Your task to perform on an android device: clear all cookies in the chrome app Image 0: 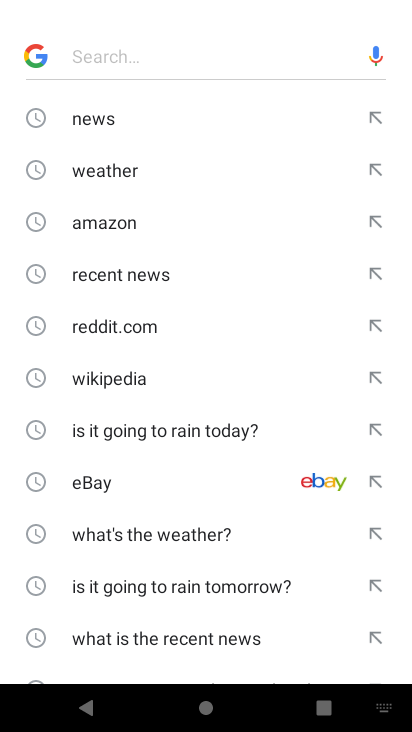
Step 0: press home button
Your task to perform on an android device: clear all cookies in the chrome app Image 1: 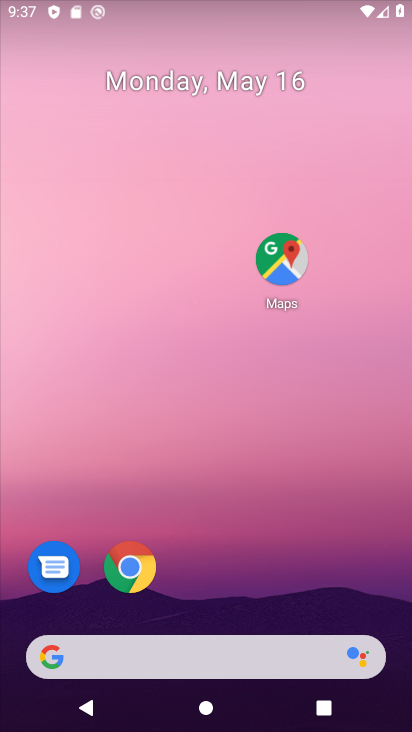
Step 1: click (130, 572)
Your task to perform on an android device: clear all cookies in the chrome app Image 2: 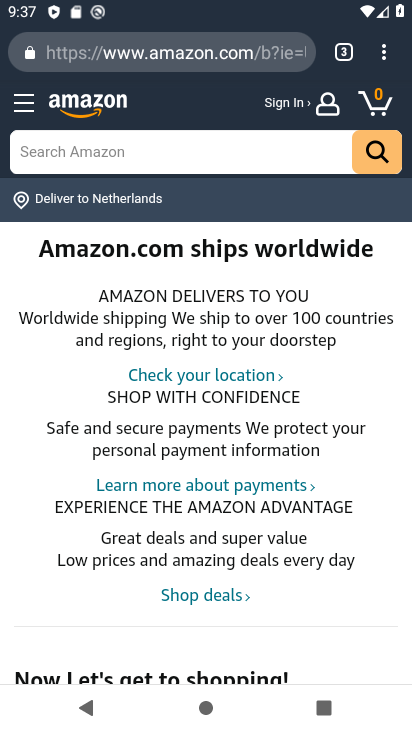
Step 2: click (377, 53)
Your task to perform on an android device: clear all cookies in the chrome app Image 3: 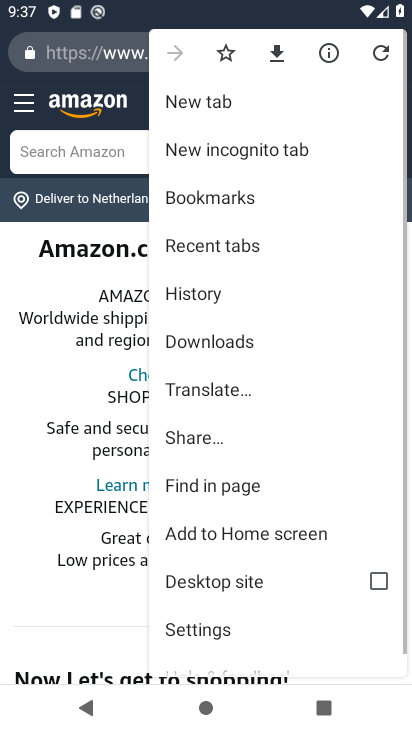
Step 3: click (243, 627)
Your task to perform on an android device: clear all cookies in the chrome app Image 4: 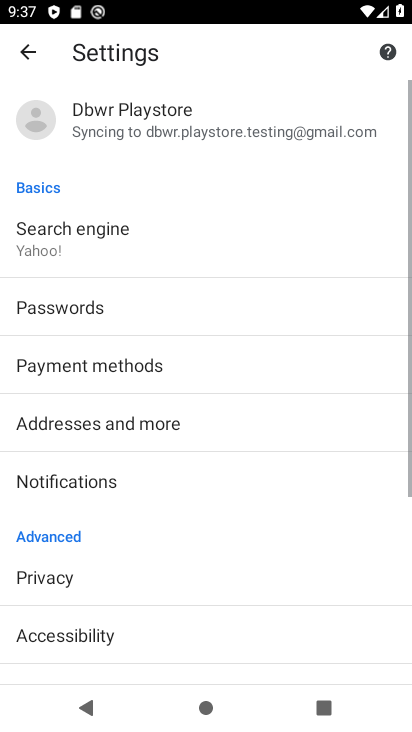
Step 4: click (56, 588)
Your task to perform on an android device: clear all cookies in the chrome app Image 5: 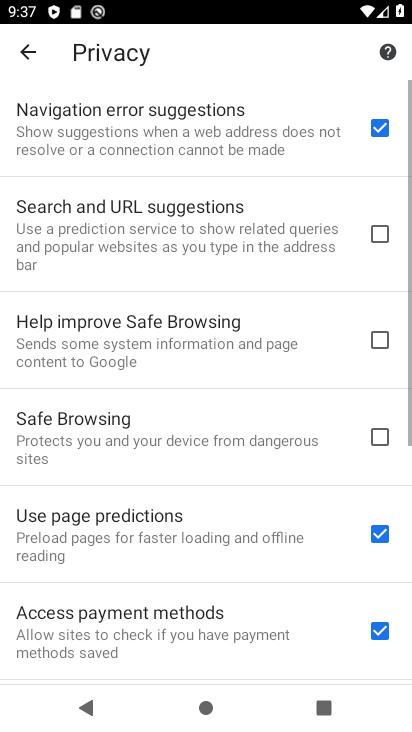
Step 5: drag from (309, 536) to (323, 41)
Your task to perform on an android device: clear all cookies in the chrome app Image 6: 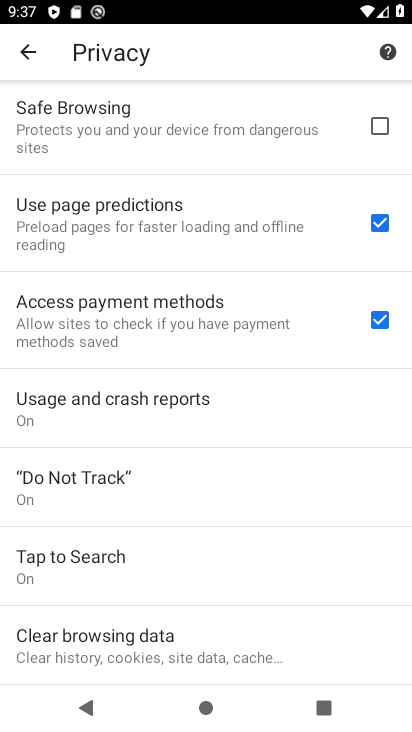
Step 6: click (159, 659)
Your task to perform on an android device: clear all cookies in the chrome app Image 7: 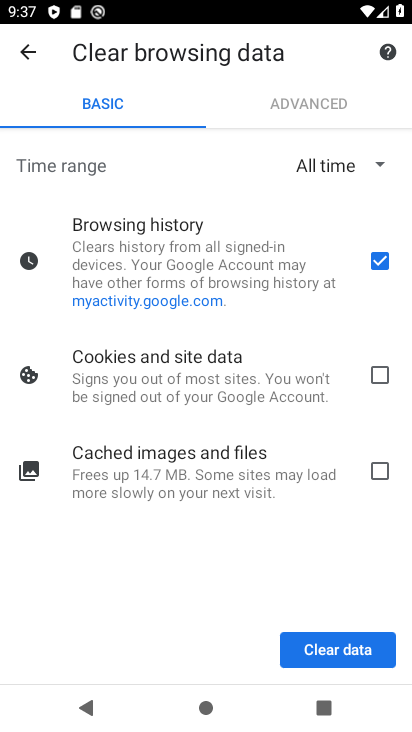
Step 7: click (378, 380)
Your task to perform on an android device: clear all cookies in the chrome app Image 8: 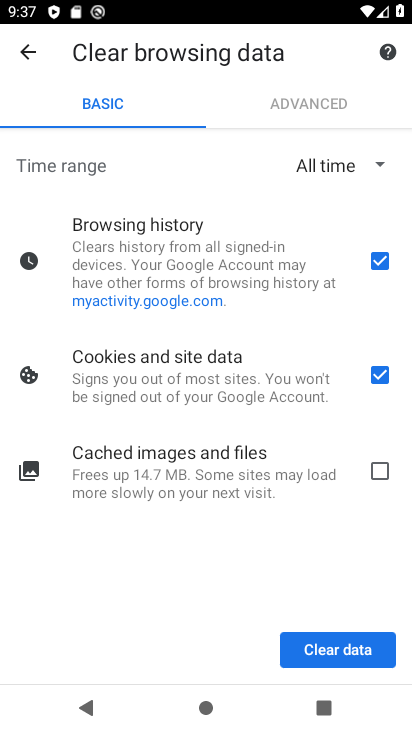
Step 8: click (381, 270)
Your task to perform on an android device: clear all cookies in the chrome app Image 9: 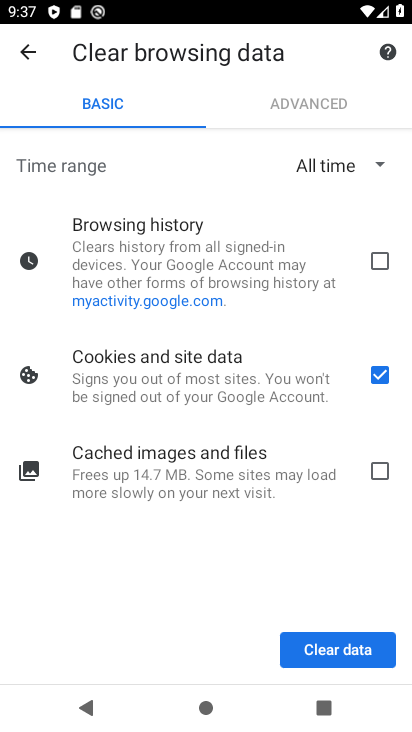
Step 9: click (319, 653)
Your task to perform on an android device: clear all cookies in the chrome app Image 10: 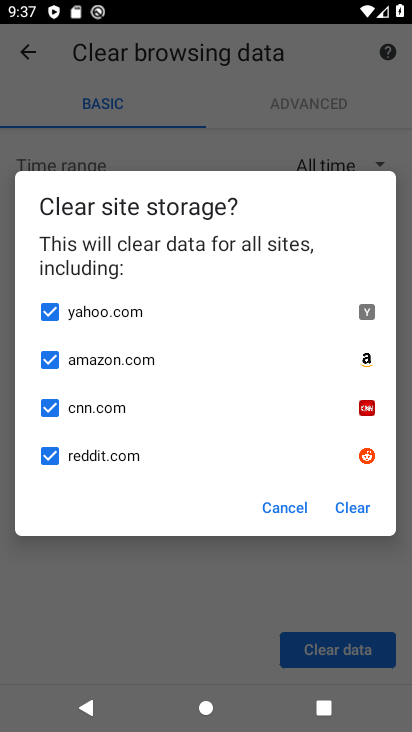
Step 10: click (352, 508)
Your task to perform on an android device: clear all cookies in the chrome app Image 11: 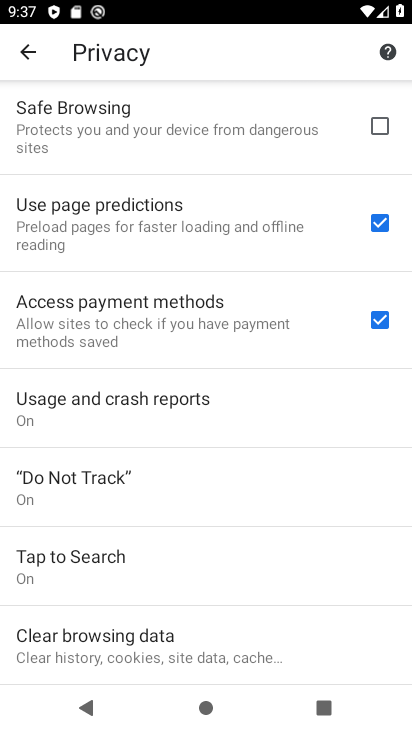
Step 11: task complete